Your task to perform on an android device: turn on priority inbox in the gmail app Image 0: 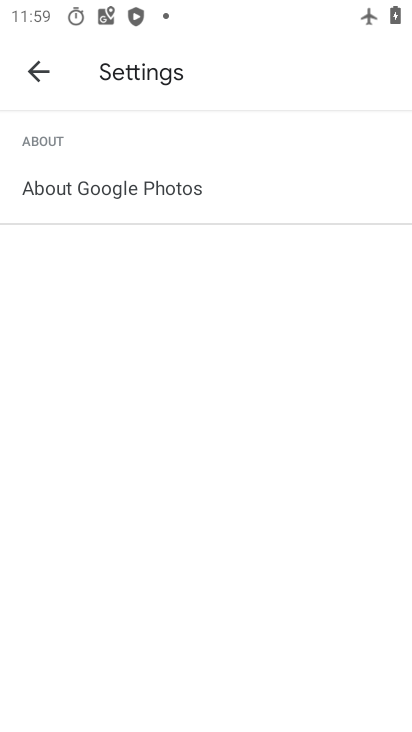
Step 0: press home button
Your task to perform on an android device: turn on priority inbox in the gmail app Image 1: 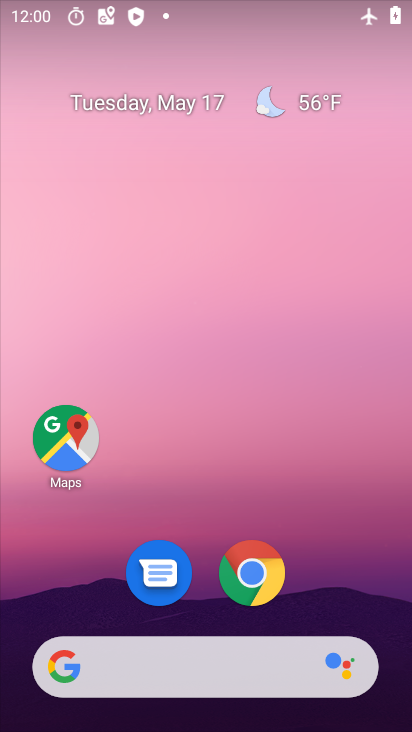
Step 1: drag from (201, 715) to (273, 53)
Your task to perform on an android device: turn on priority inbox in the gmail app Image 2: 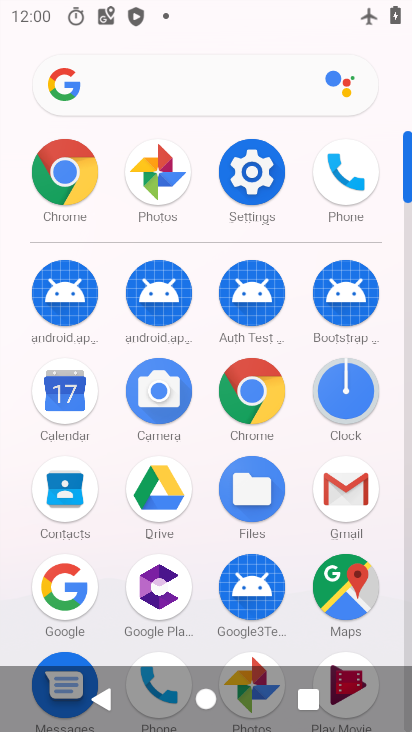
Step 2: click (357, 500)
Your task to perform on an android device: turn on priority inbox in the gmail app Image 3: 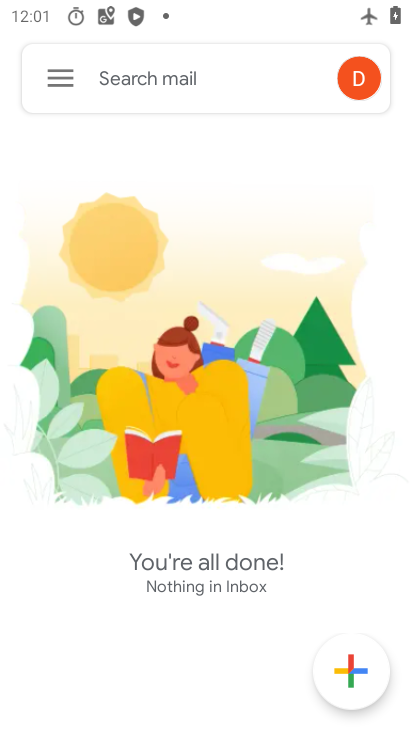
Step 3: click (60, 75)
Your task to perform on an android device: turn on priority inbox in the gmail app Image 4: 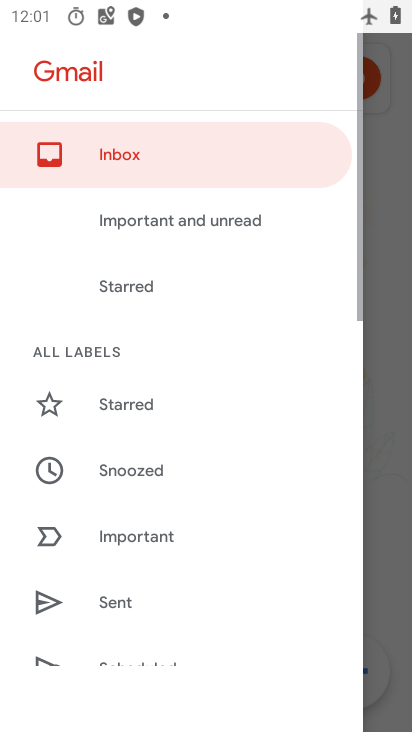
Step 4: drag from (175, 655) to (226, 13)
Your task to perform on an android device: turn on priority inbox in the gmail app Image 5: 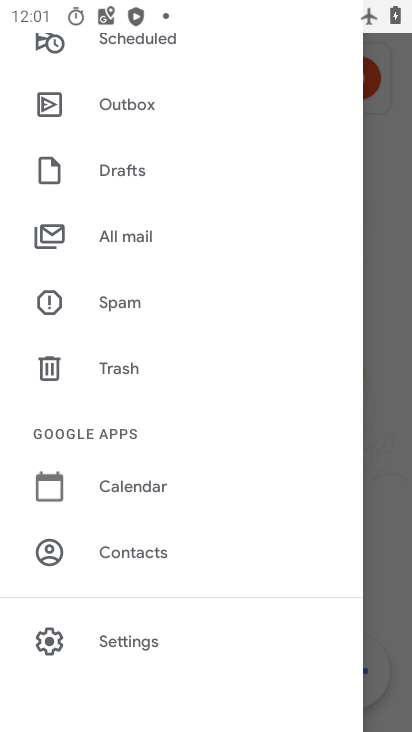
Step 5: click (166, 638)
Your task to perform on an android device: turn on priority inbox in the gmail app Image 6: 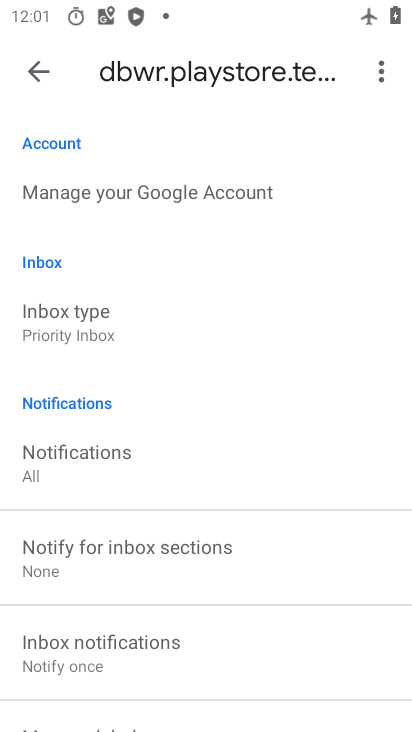
Step 6: task complete